Your task to perform on an android device: Check the news Image 0: 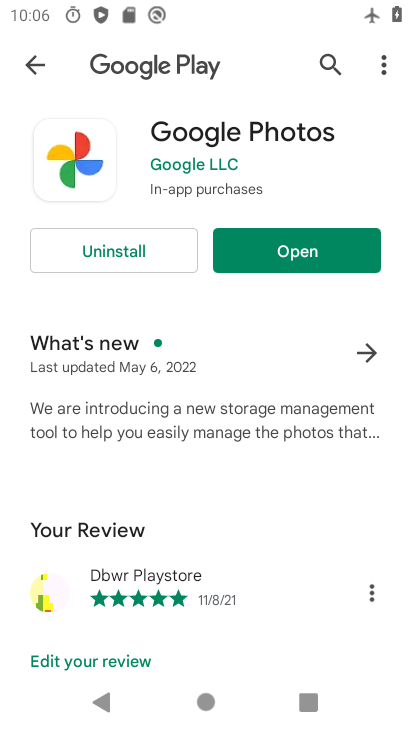
Step 0: press home button
Your task to perform on an android device: Check the news Image 1: 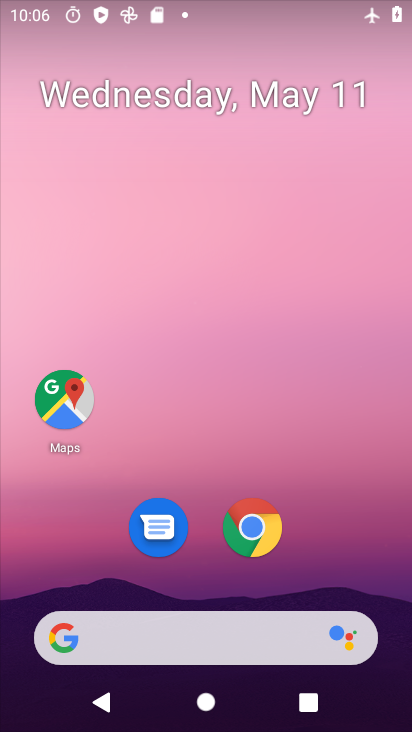
Step 1: drag from (298, 603) to (336, 401)
Your task to perform on an android device: Check the news Image 2: 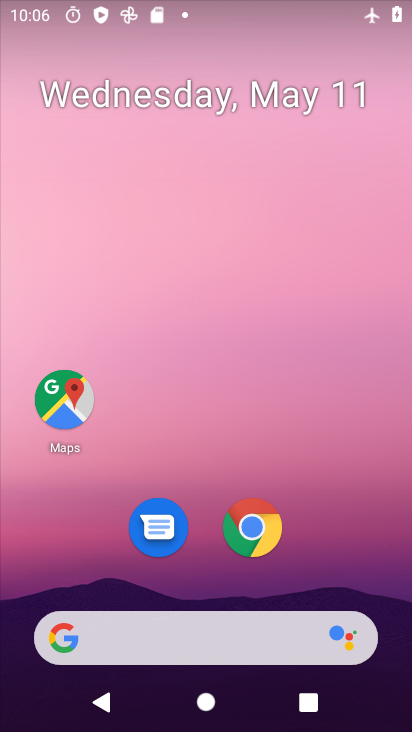
Step 2: drag from (209, 662) to (212, 417)
Your task to perform on an android device: Check the news Image 3: 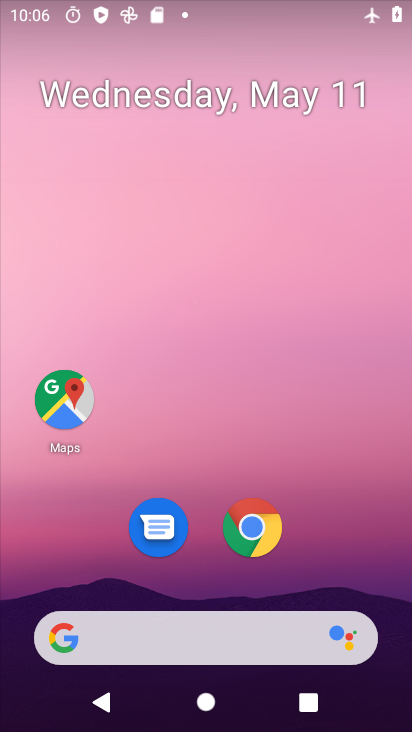
Step 3: drag from (183, 635) to (228, 431)
Your task to perform on an android device: Check the news Image 4: 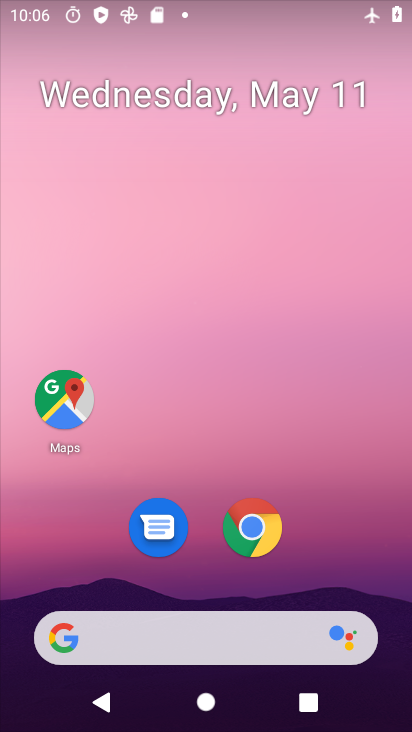
Step 4: drag from (221, 644) to (390, 141)
Your task to perform on an android device: Check the news Image 5: 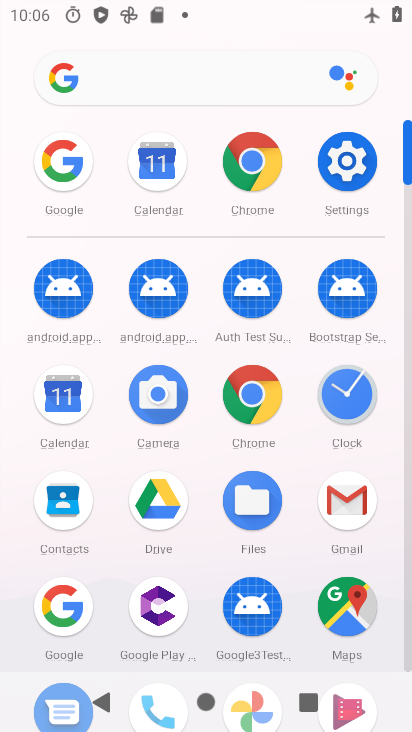
Step 5: click (65, 615)
Your task to perform on an android device: Check the news Image 6: 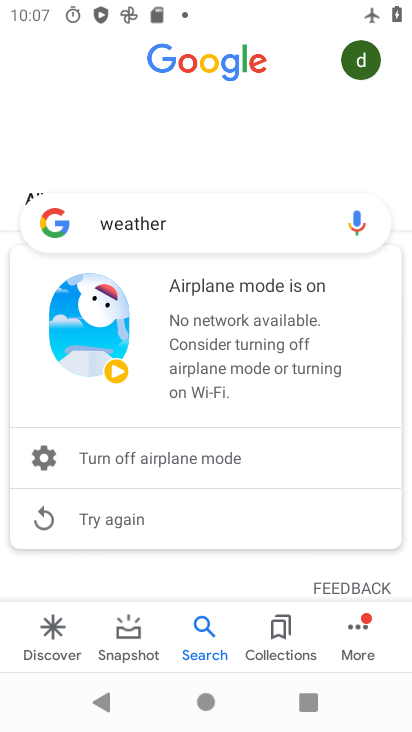
Step 6: click (181, 241)
Your task to perform on an android device: Check the news Image 7: 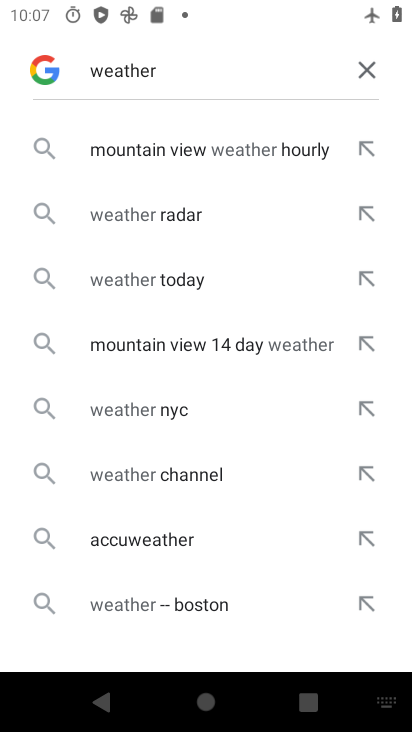
Step 7: click (365, 83)
Your task to perform on an android device: Check the news Image 8: 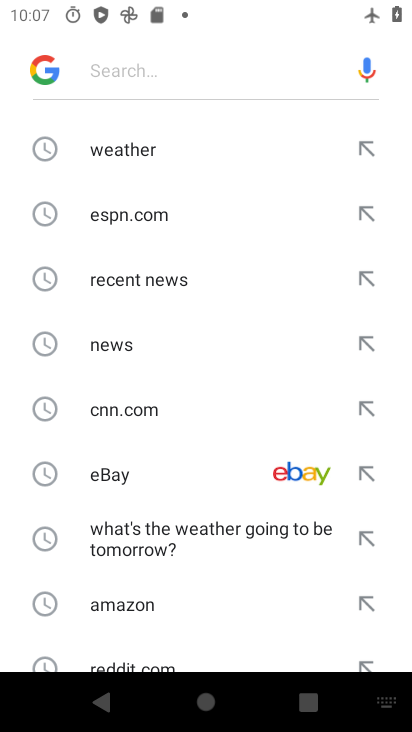
Step 8: click (137, 348)
Your task to perform on an android device: Check the news Image 9: 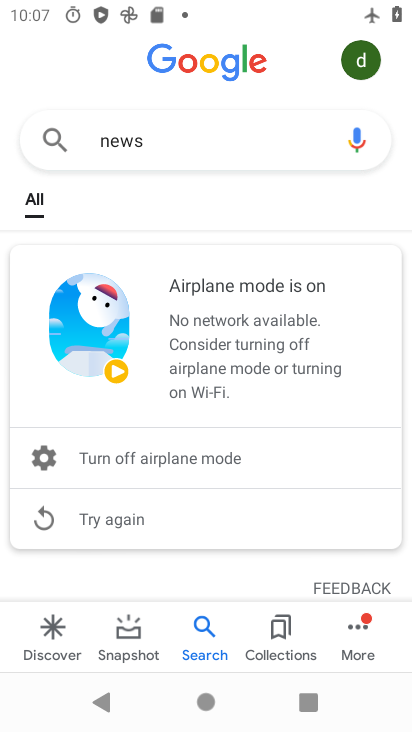
Step 9: task complete